Your task to perform on an android device: change notifications settings Image 0: 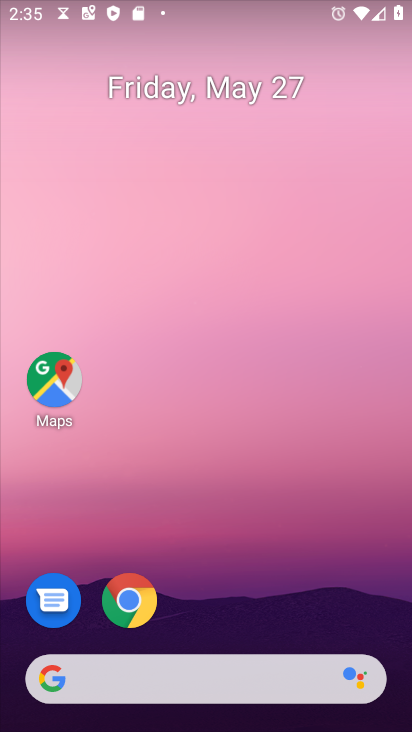
Step 0: drag from (223, 542) to (161, 10)
Your task to perform on an android device: change notifications settings Image 1: 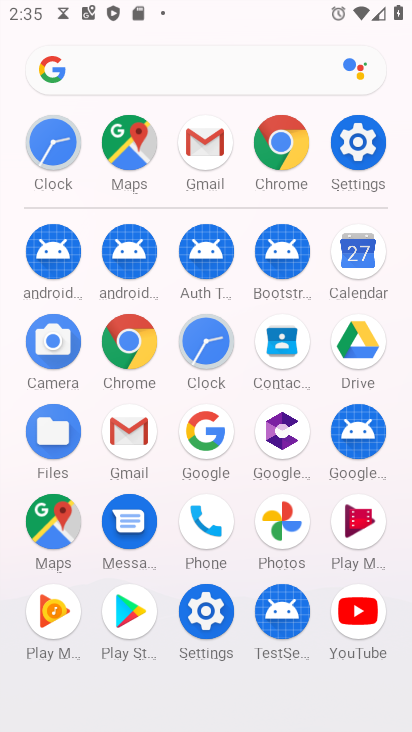
Step 1: click (196, 613)
Your task to perform on an android device: change notifications settings Image 2: 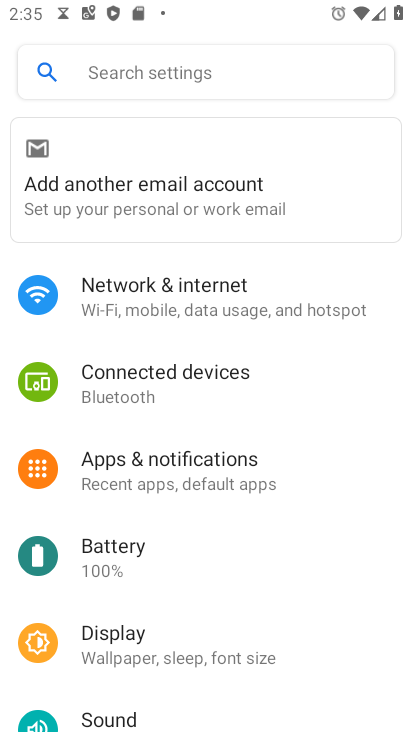
Step 2: click (205, 478)
Your task to perform on an android device: change notifications settings Image 3: 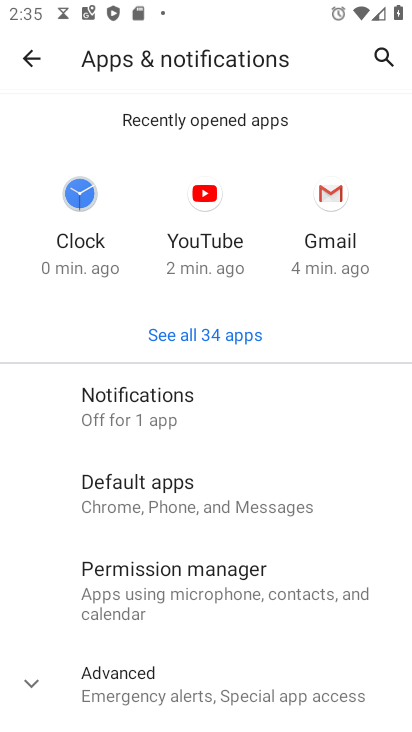
Step 3: click (40, 680)
Your task to perform on an android device: change notifications settings Image 4: 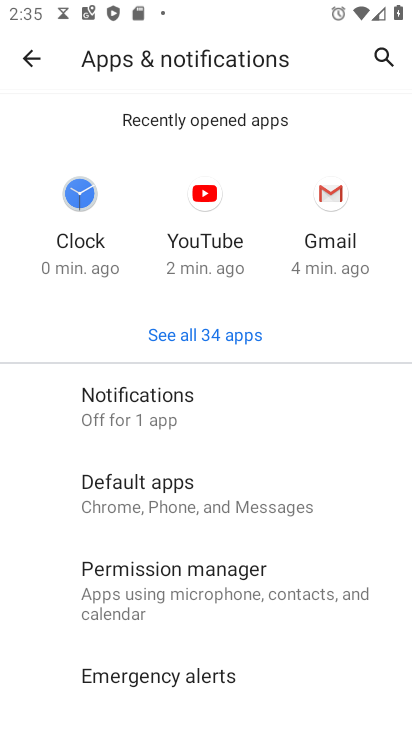
Step 4: click (224, 416)
Your task to perform on an android device: change notifications settings Image 5: 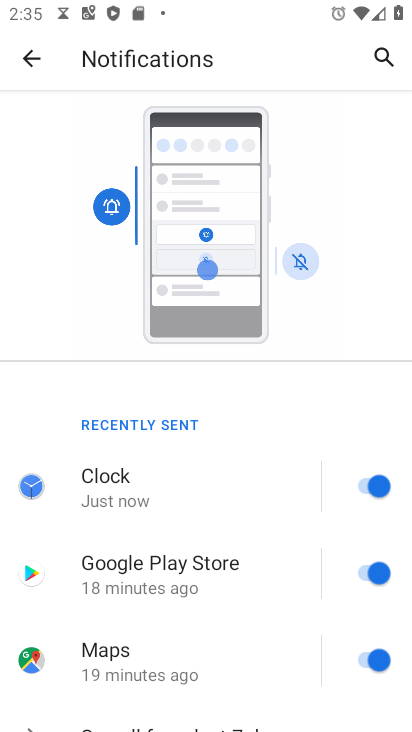
Step 5: drag from (229, 519) to (226, 172)
Your task to perform on an android device: change notifications settings Image 6: 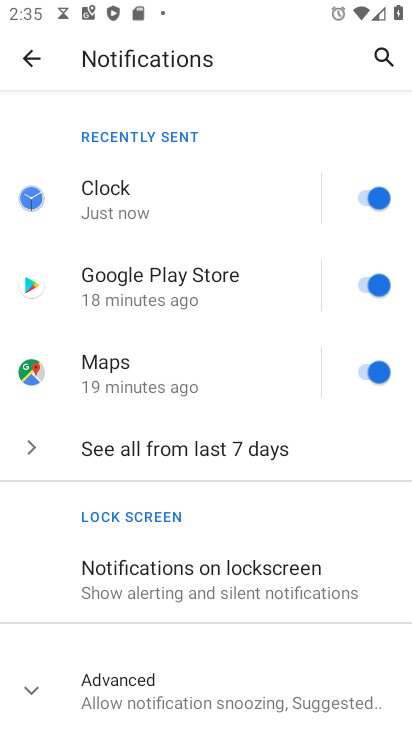
Step 6: drag from (232, 533) to (242, 114)
Your task to perform on an android device: change notifications settings Image 7: 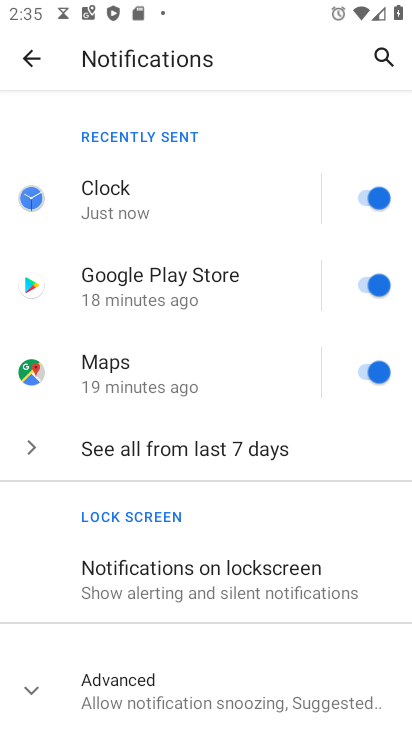
Step 7: click (16, 674)
Your task to perform on an android device: change notifications settings Image 8: 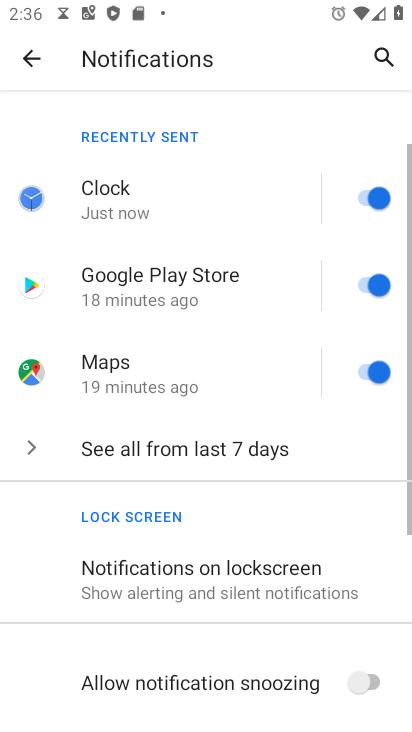
Step 8: task complete